Your task to perform on an android device: uninstall "Adobe Acrobat Reader: Edit PDF" Image 0: 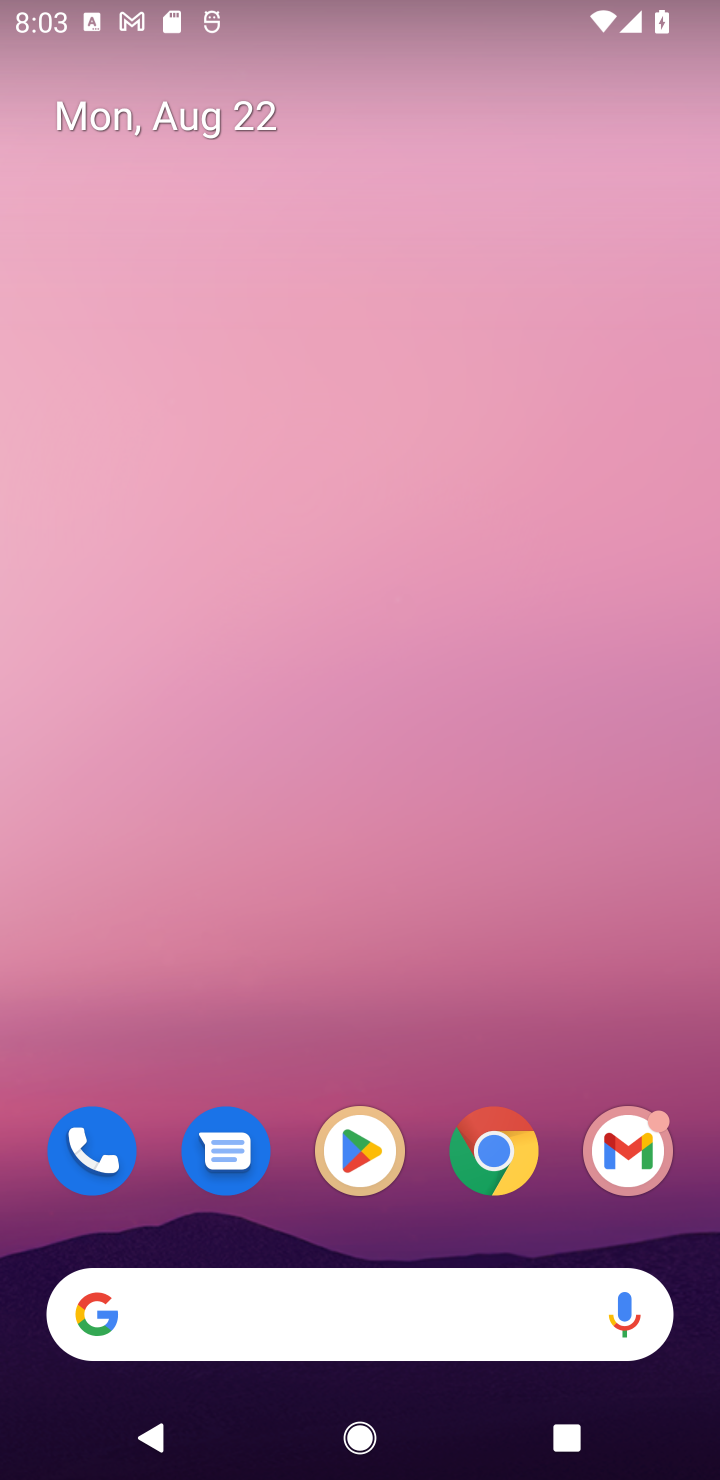
Step 0: press home button
Your task to perform on an android device: uninstall "Adobe Acrobat Reader: Edit PDF" Image 1: 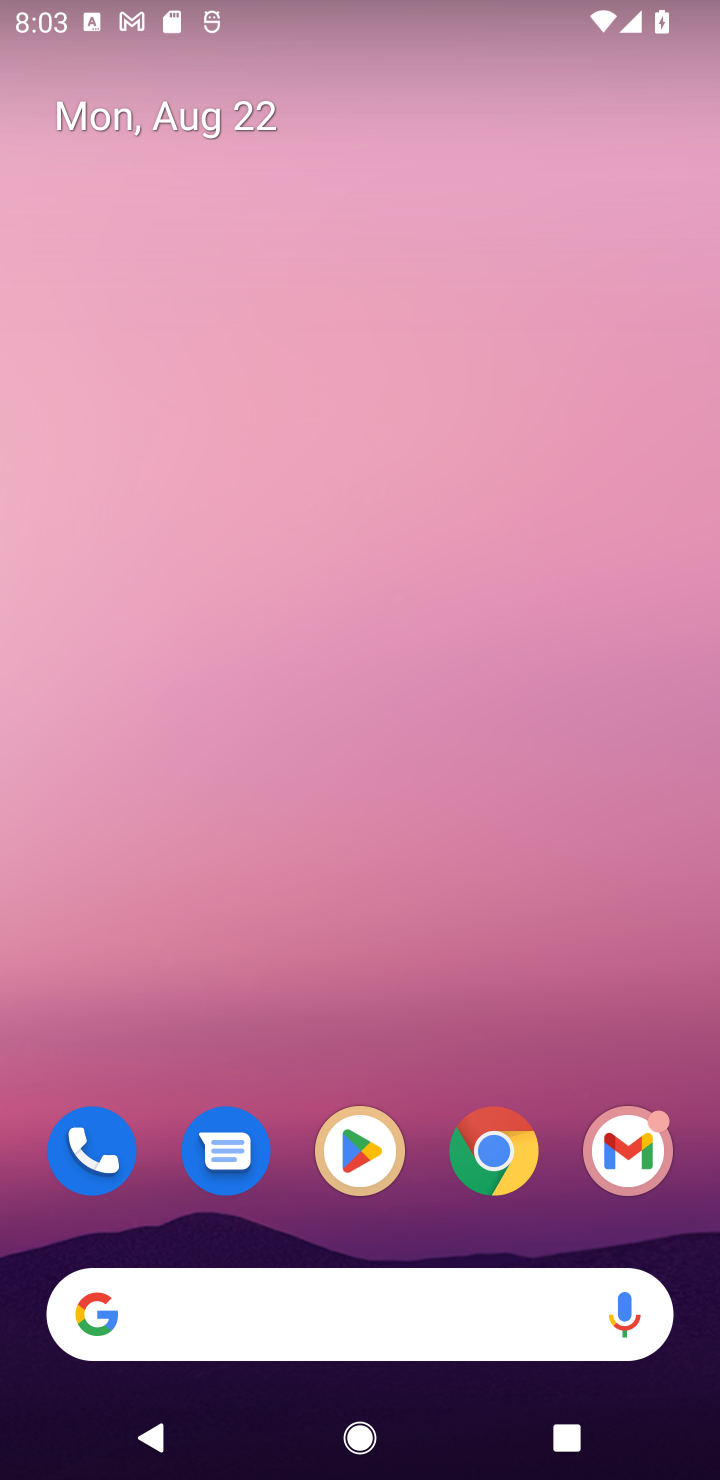
Step 1: click (362, 1159)
Your task to perform on an android device: uninstall "Adobe Acrobat Reader: Edit PDF" Image 2: 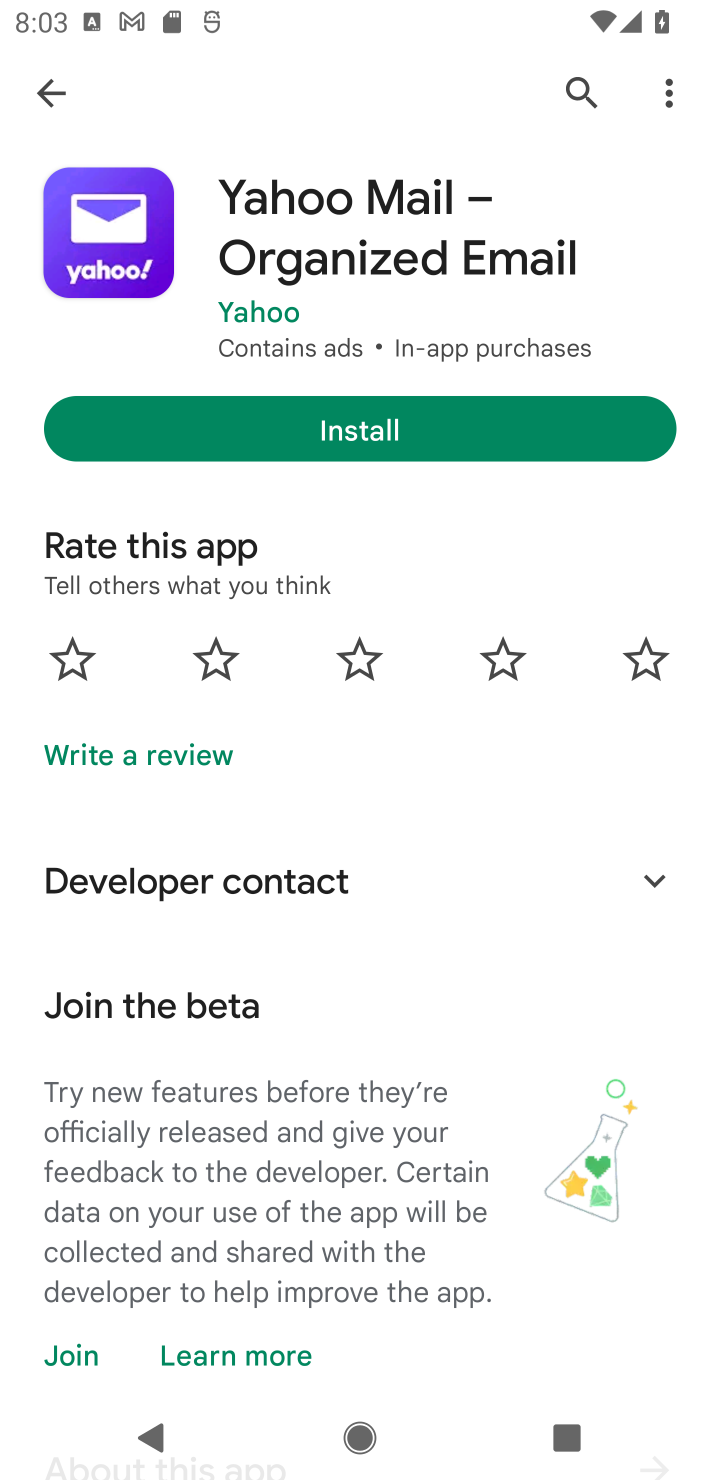
Step 2: click (577, 72)
Your task to perform on an android device: uninstall "Adobe Acrobat Reader: Edit PDF" Image 3: 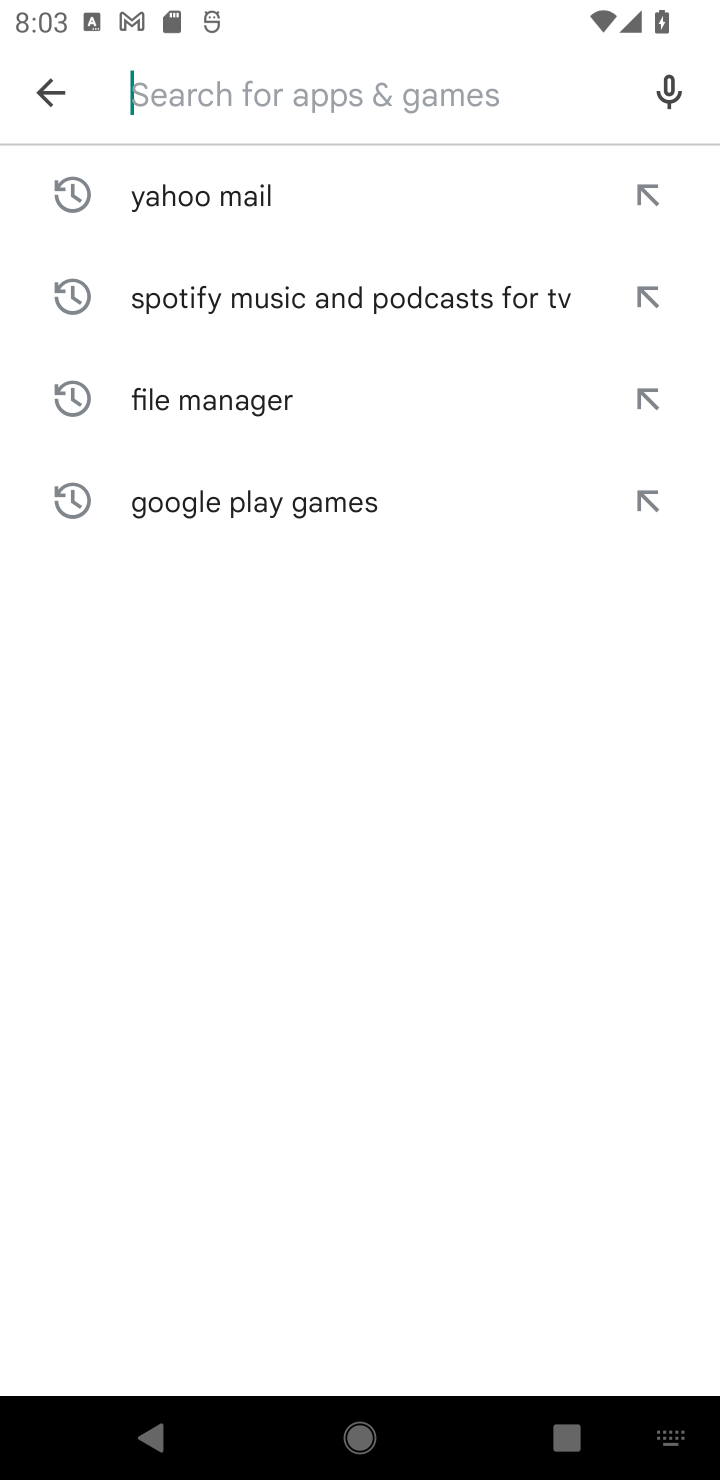
Step 3: type "Adobe Acrobat Reader: Edit PDF"
Your task to perform on an android device: uninstall "Adobe Acrobat Reader: Edit PDF" Image 4: 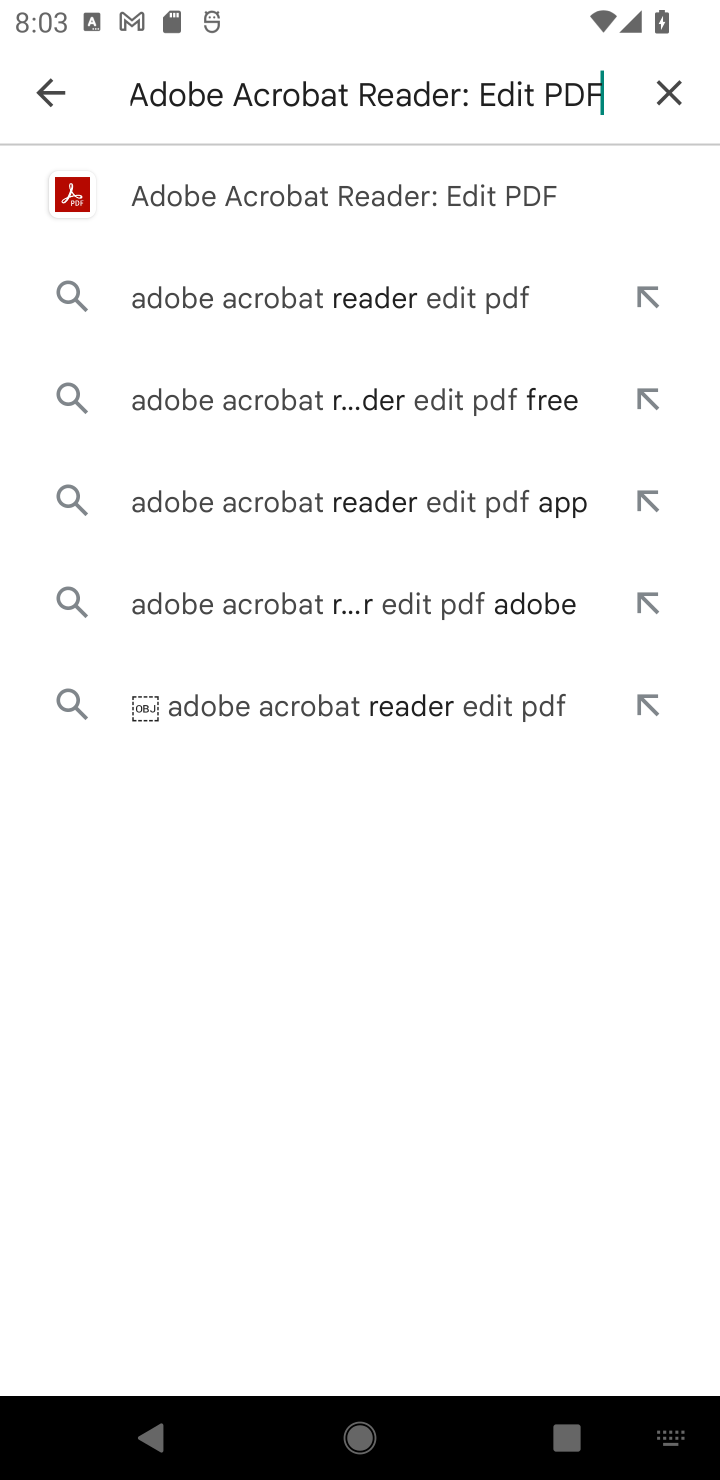
Step 4: click (297, 183)
Your task to perform on an android device: uninstall "Adobe Acrobat Reader: Edit PDF" Image 5: 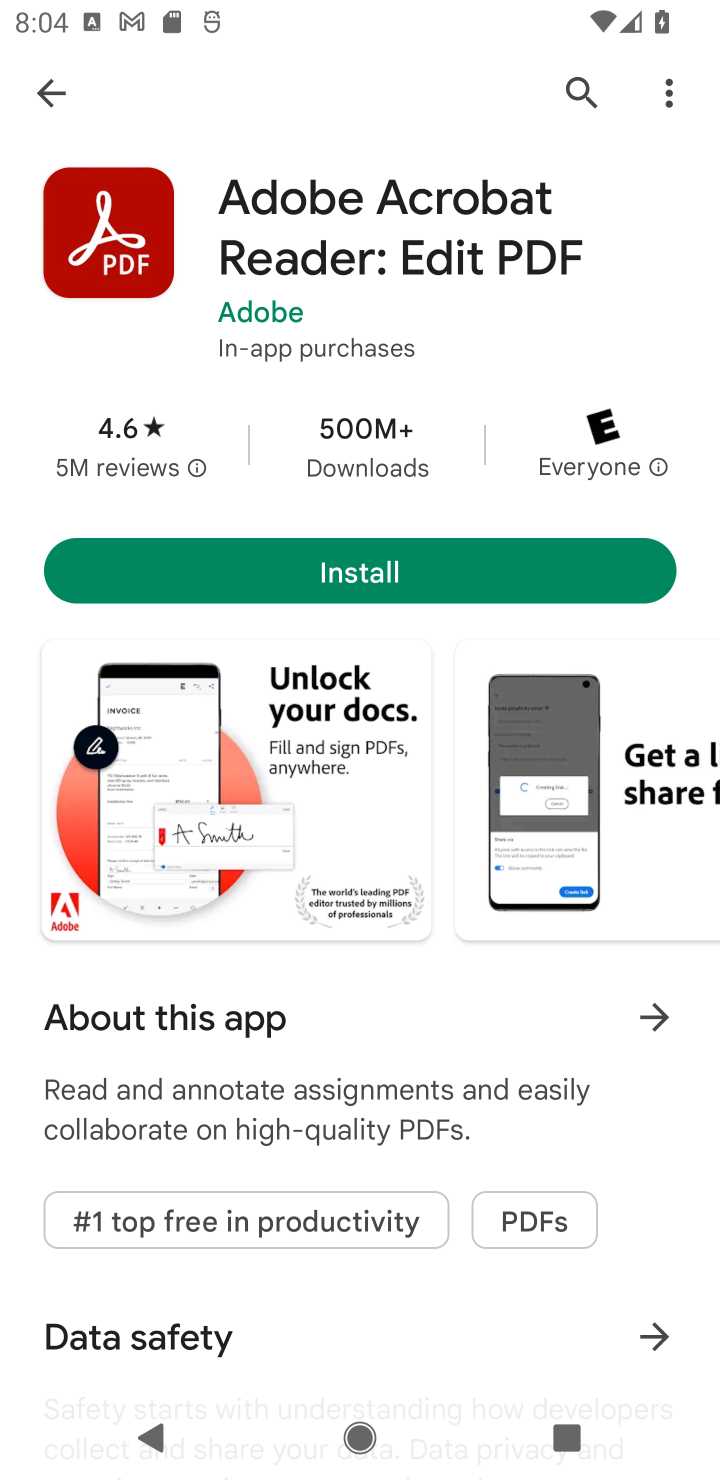
Step 5: task complete